Your task to perform on an android device: Search for flights from NYC to Chicago Image 0: 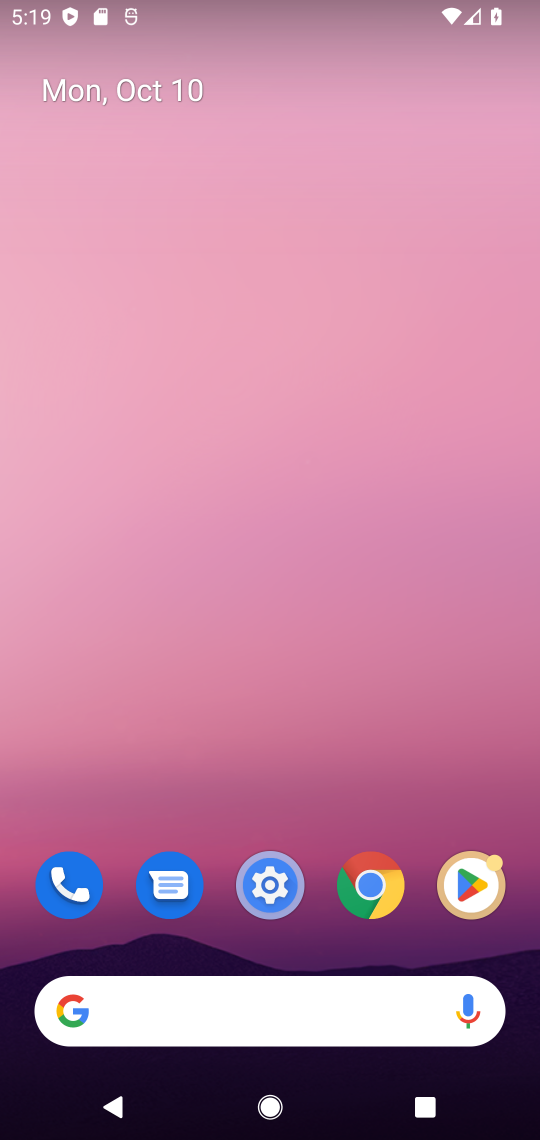
Step 0: click (375, 892)
Your task to perform on an android device: Search for flights from NYC to Chicago Image 1: 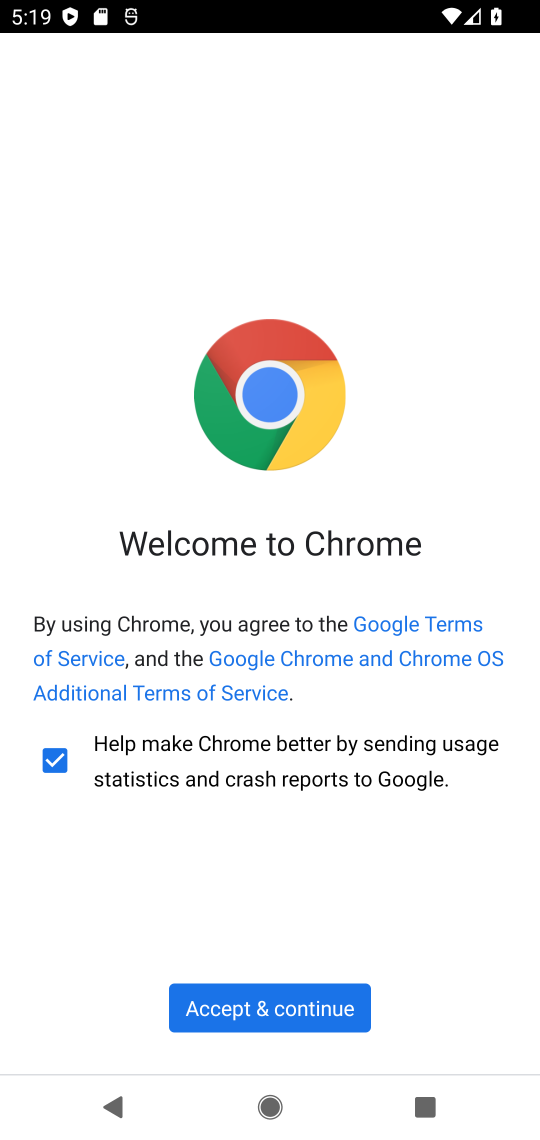
Step 1: click (292, 1020)
Your task to perform on an android device: Search for flights from NYC to Chicago Image 2: 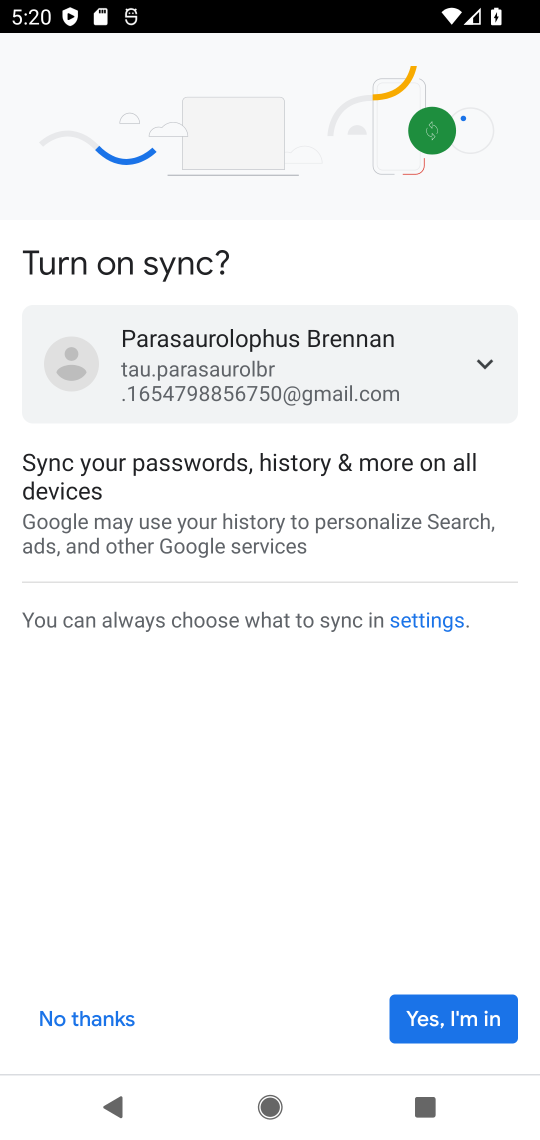
Step 2: click (53, 1023)
Your task to perform on an android device: Search for flights from NYC to Chicago Image 3: 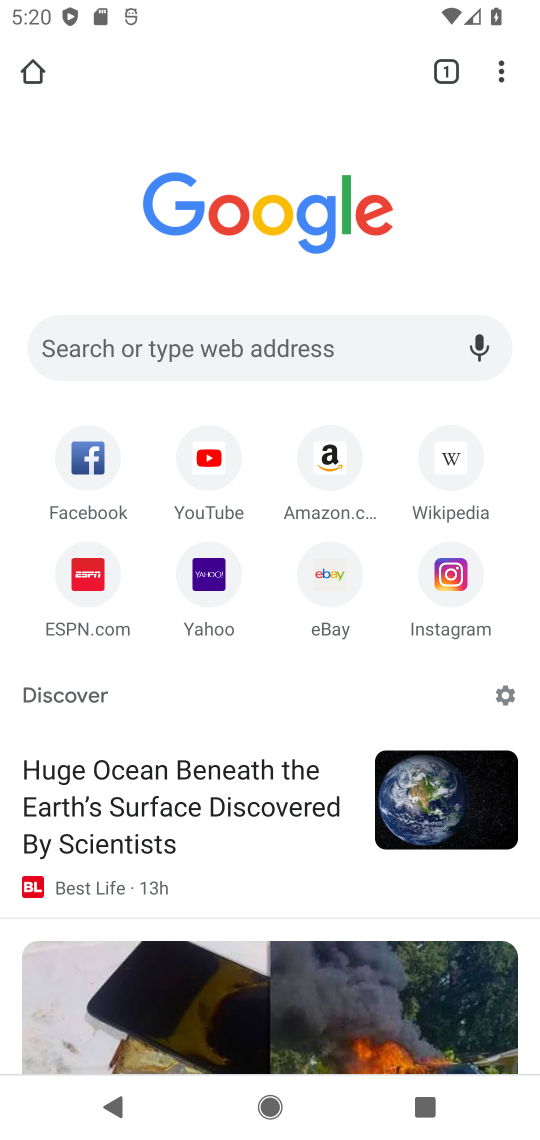
Step 3: click (326, 347)
Your task to perform on an android device: Search for flights from NYC to Chicago Image 4: 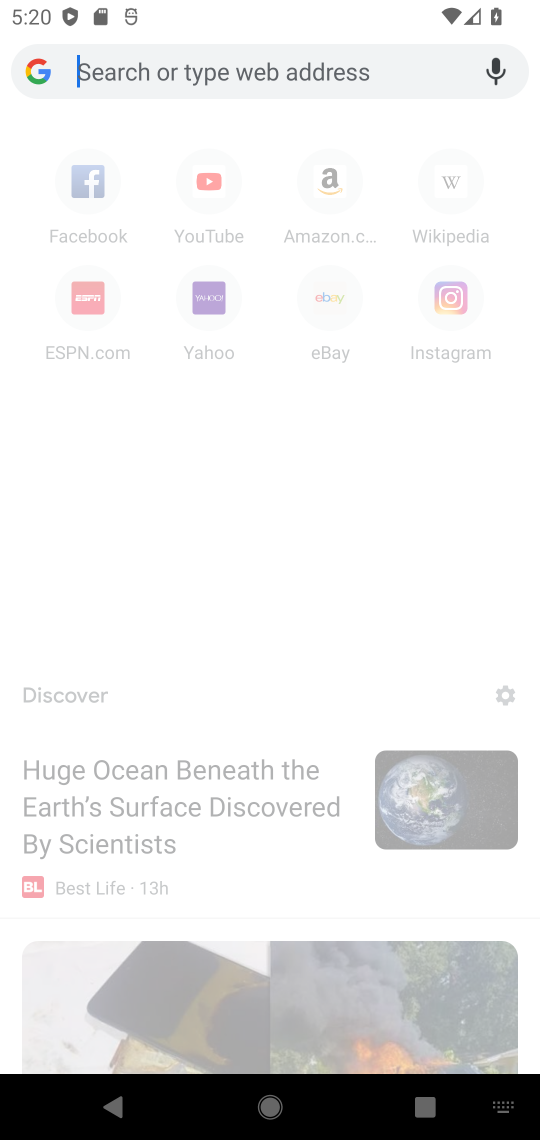
Step 4: type "flights from NYC to Chicago"
Your task to perform on an android device: Search for flights from NYC to Chicago Image 5: 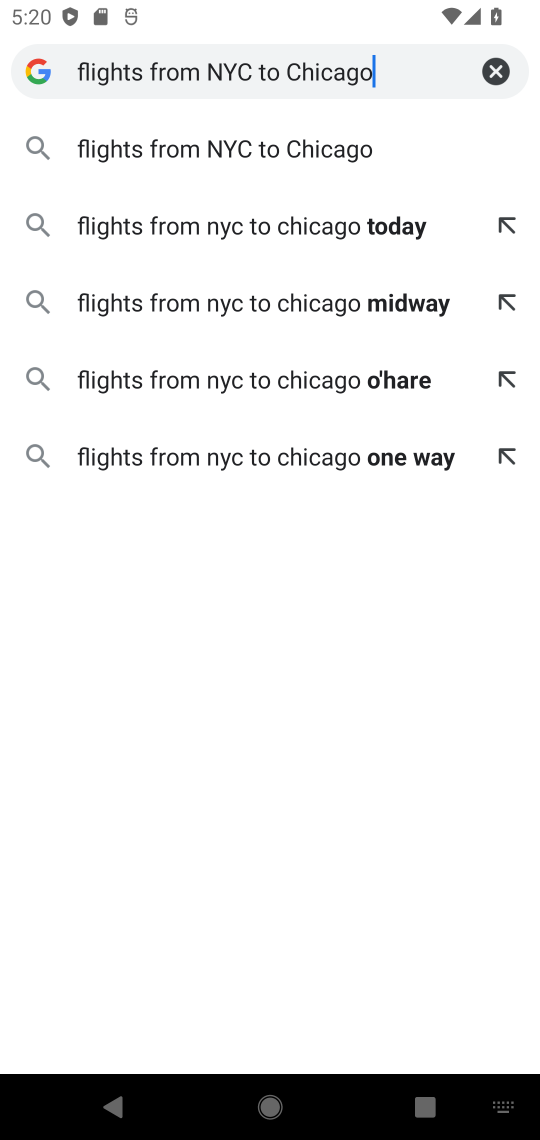
Step 5: press enter
Your task to perform on an android device: Search for flights from NYC to Chicago Image 6: 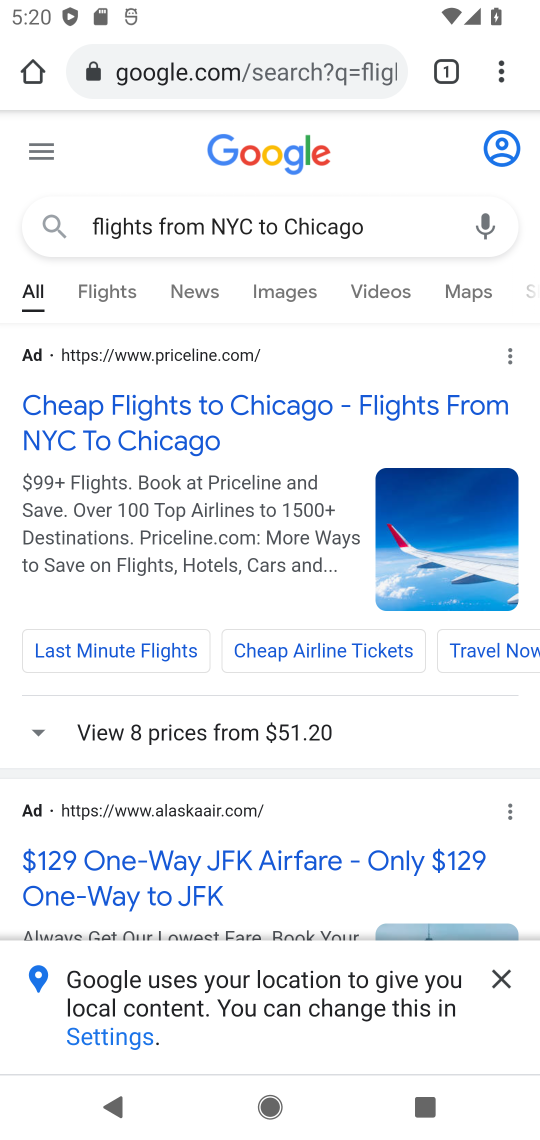
Step 6: drag from (361, 795) to (399, 140)
Your task to perform on an android device: Search for flights from NYC to Chicago Image 7: 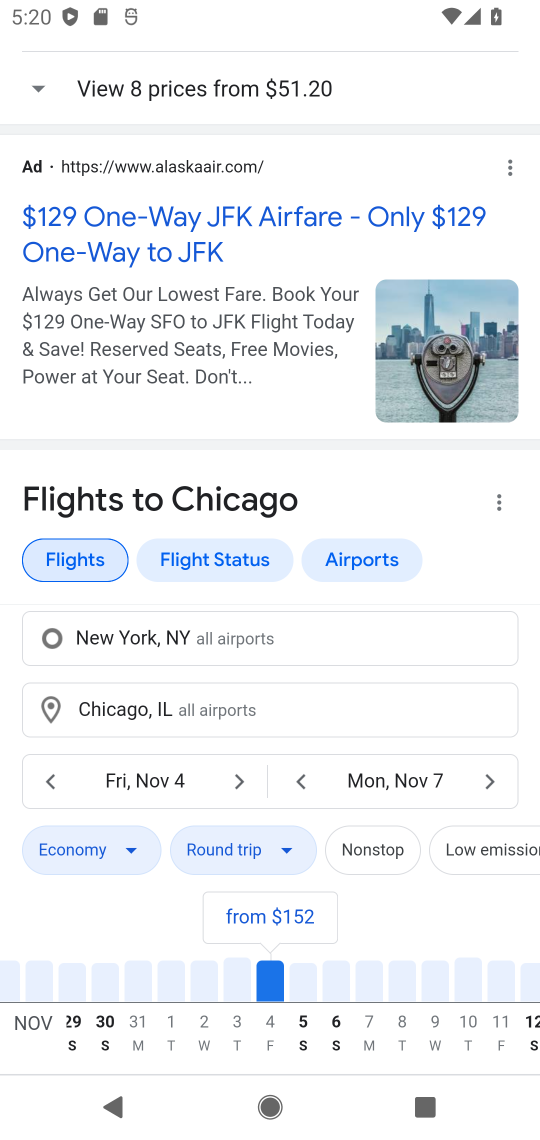
Step 7: drag from (376, 743) to (312, 327)
Your task to perform on an android device: Search for flights from NYC to Chicago Image 8: 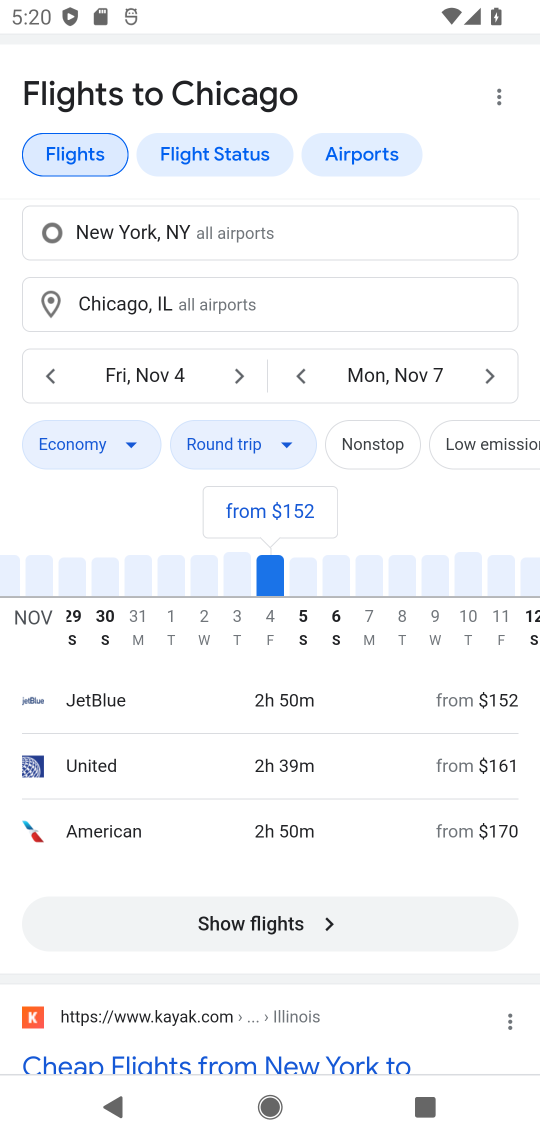
Step 8: click (249, 926)
Your task to perform on an android device: Search for flights from NYC to Chicago Image 9: 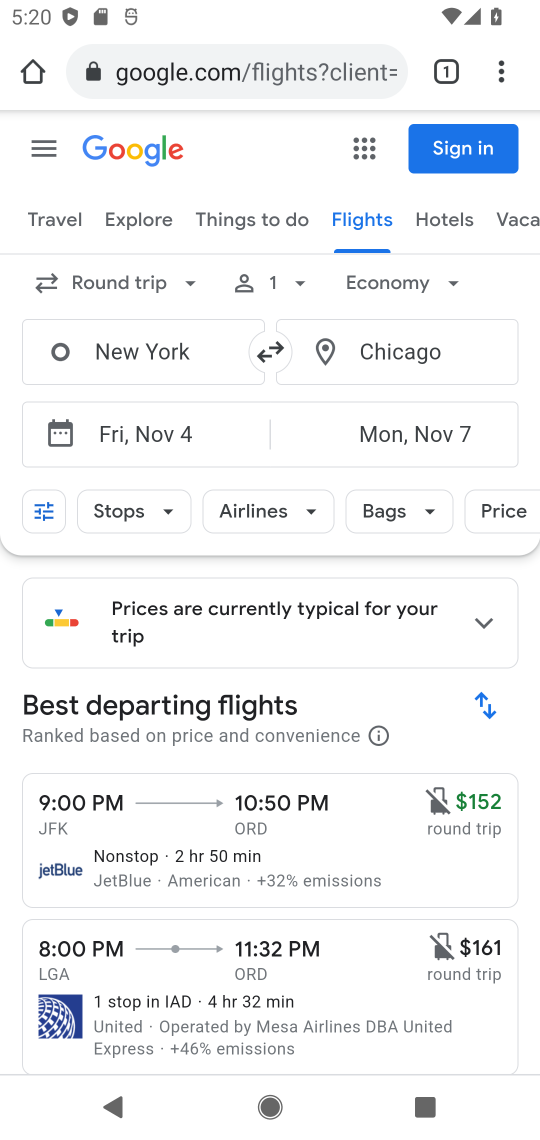
Step 9: task complete